Your task to perform on an android device: install app "The Home Depot" Image 0: 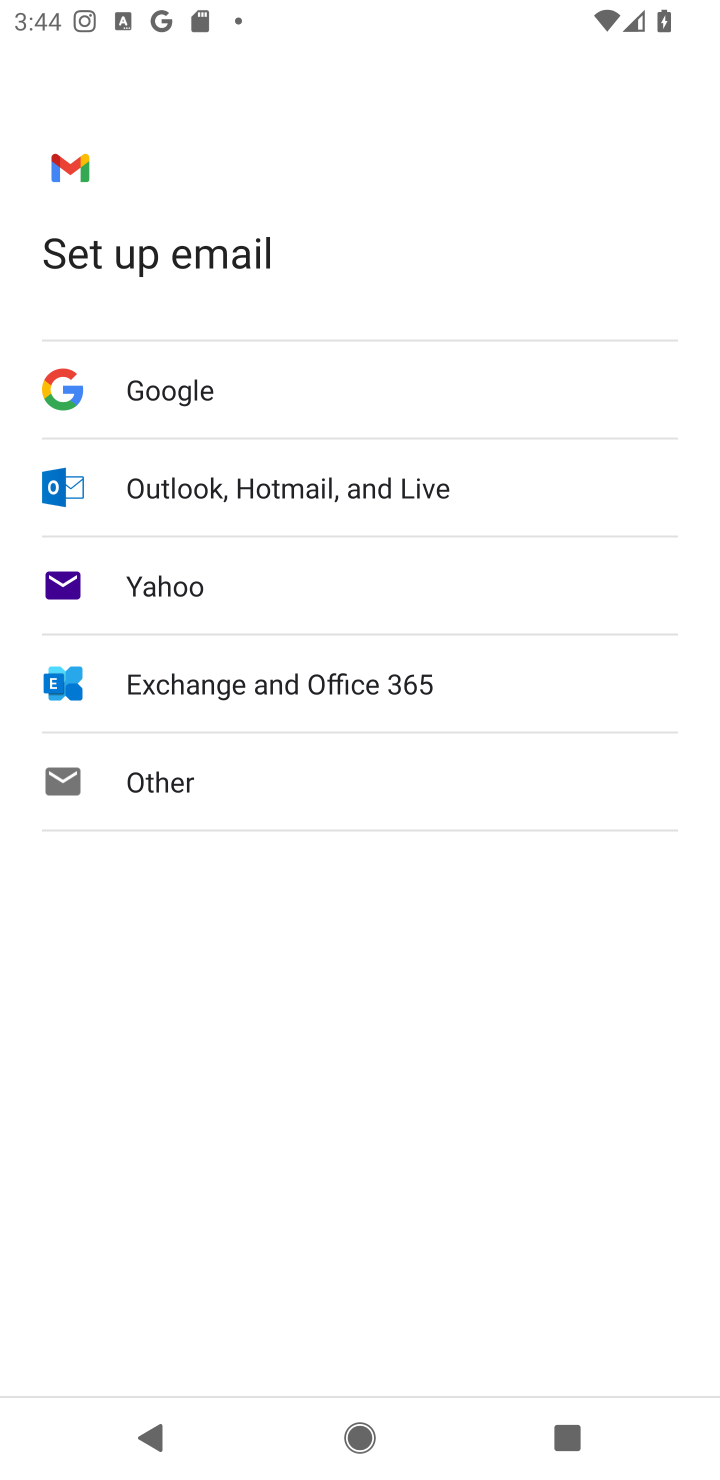
Step 0: press home button
Your task to perform on an android device: install app "The Home Depot" Image 1: 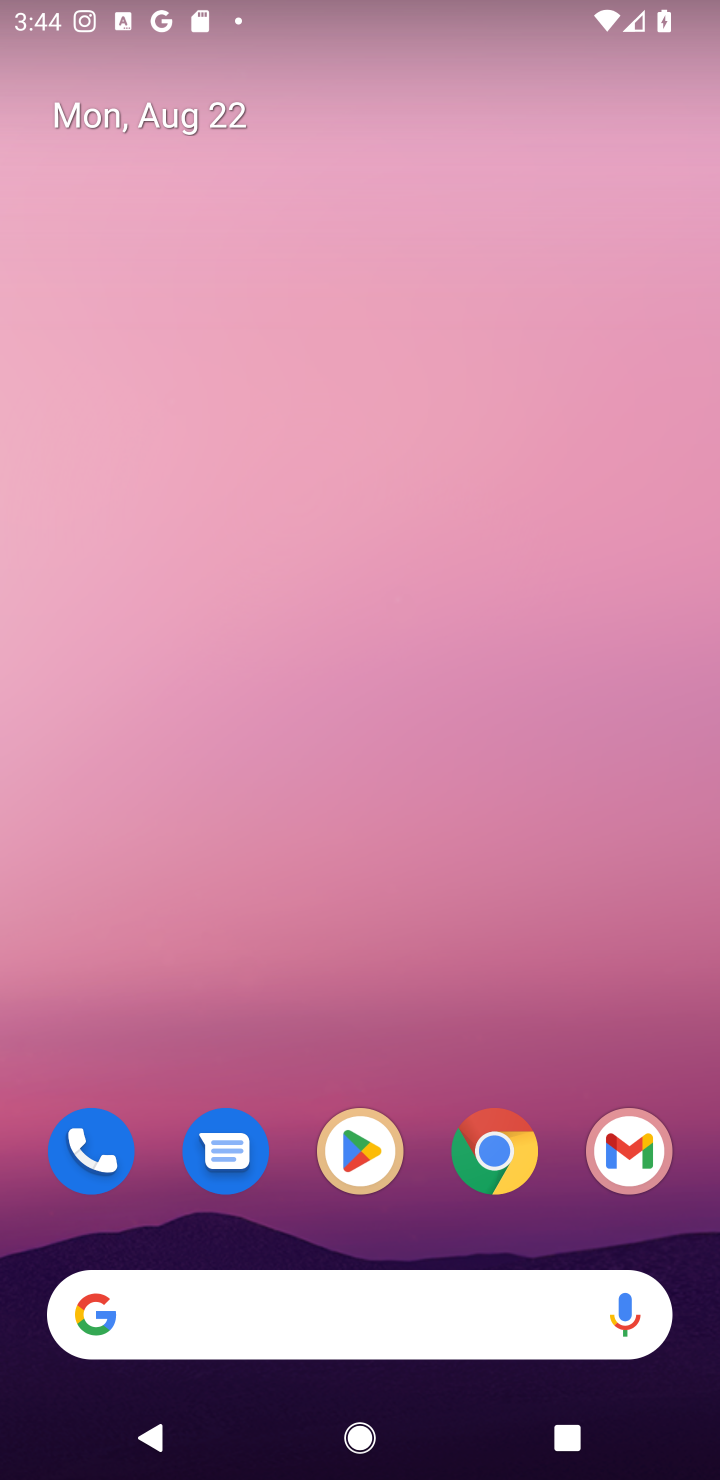
Step 1: click (357, 1154)
Your task to perform on an android device: install app "The Home Depot" Image 2: 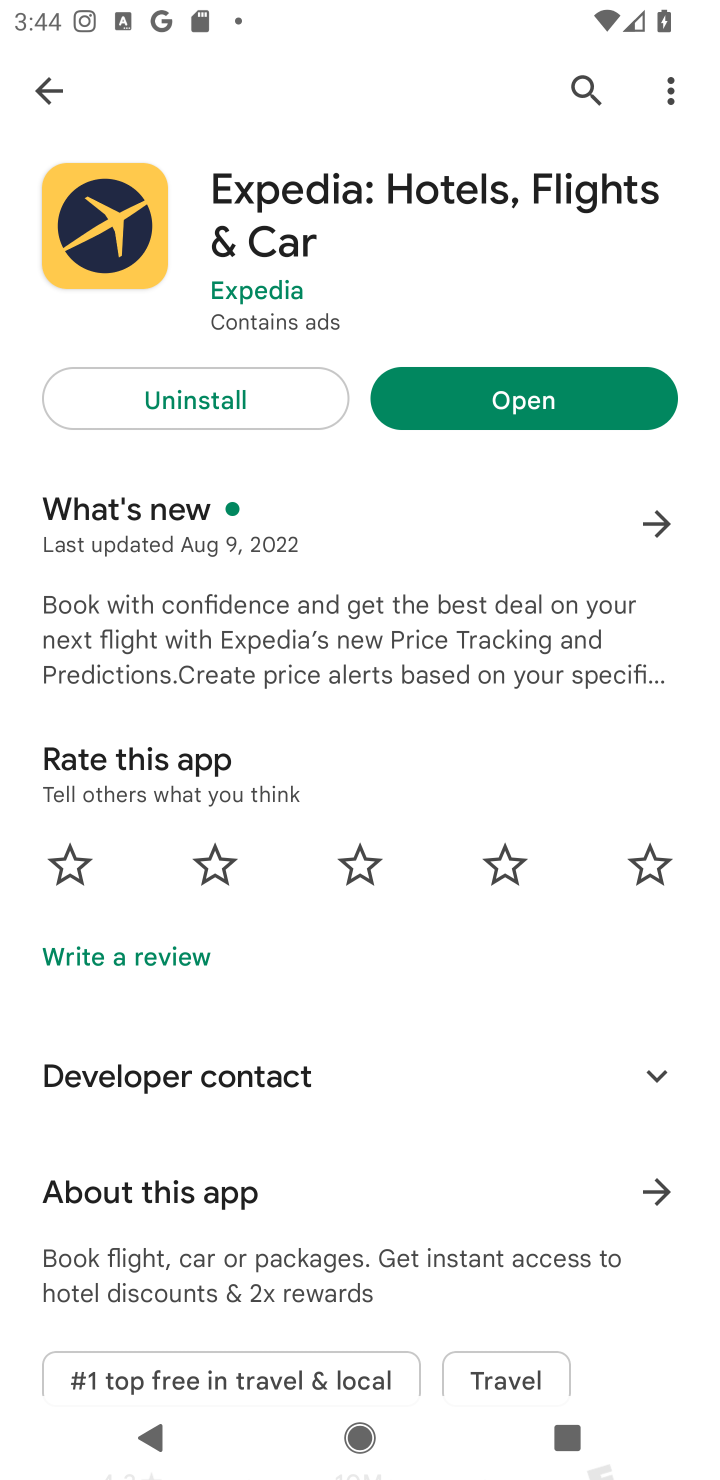
Step 2: click (580, 79)
Your task to perform on an android device: install app "The Home Depot" Image 3: 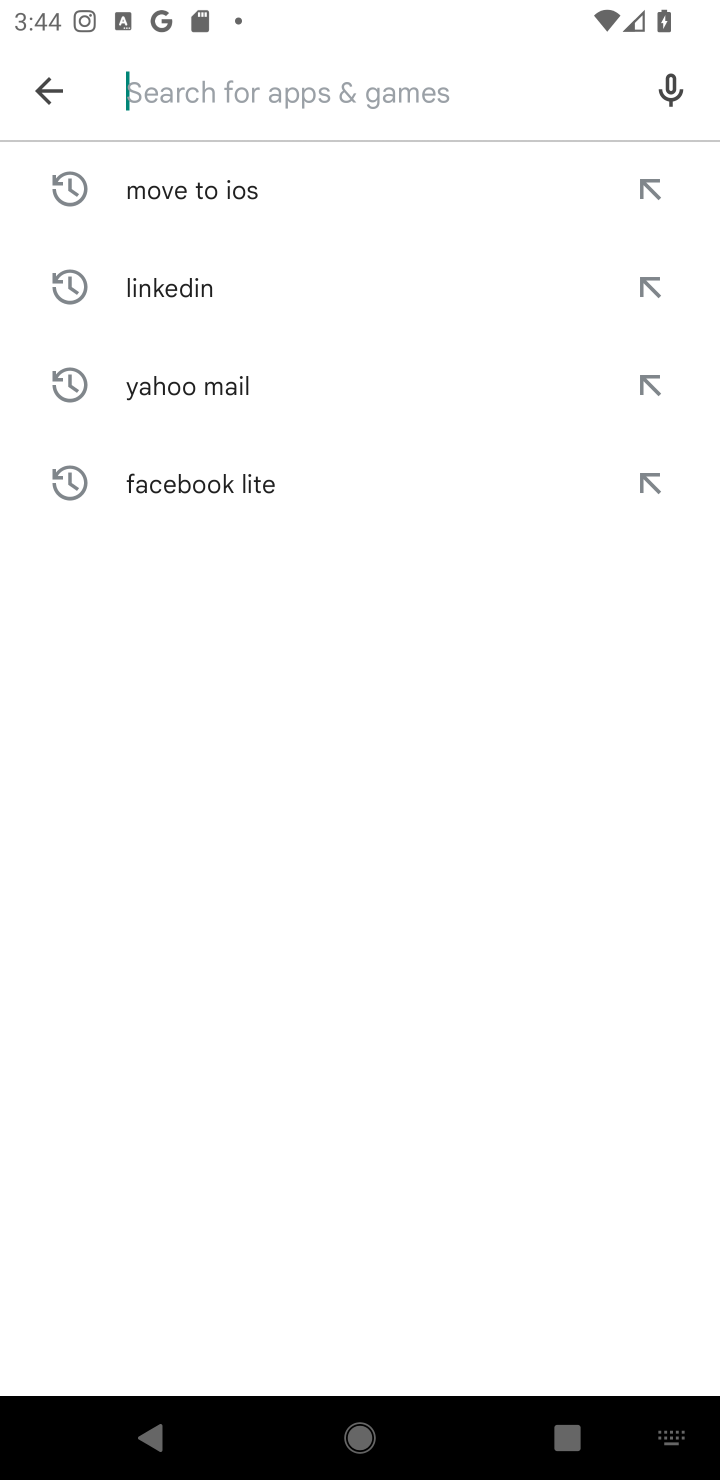
Step 3: type "The Home Depot"
Your task to perform on an android device: install app "The Home Depot" Image 4: 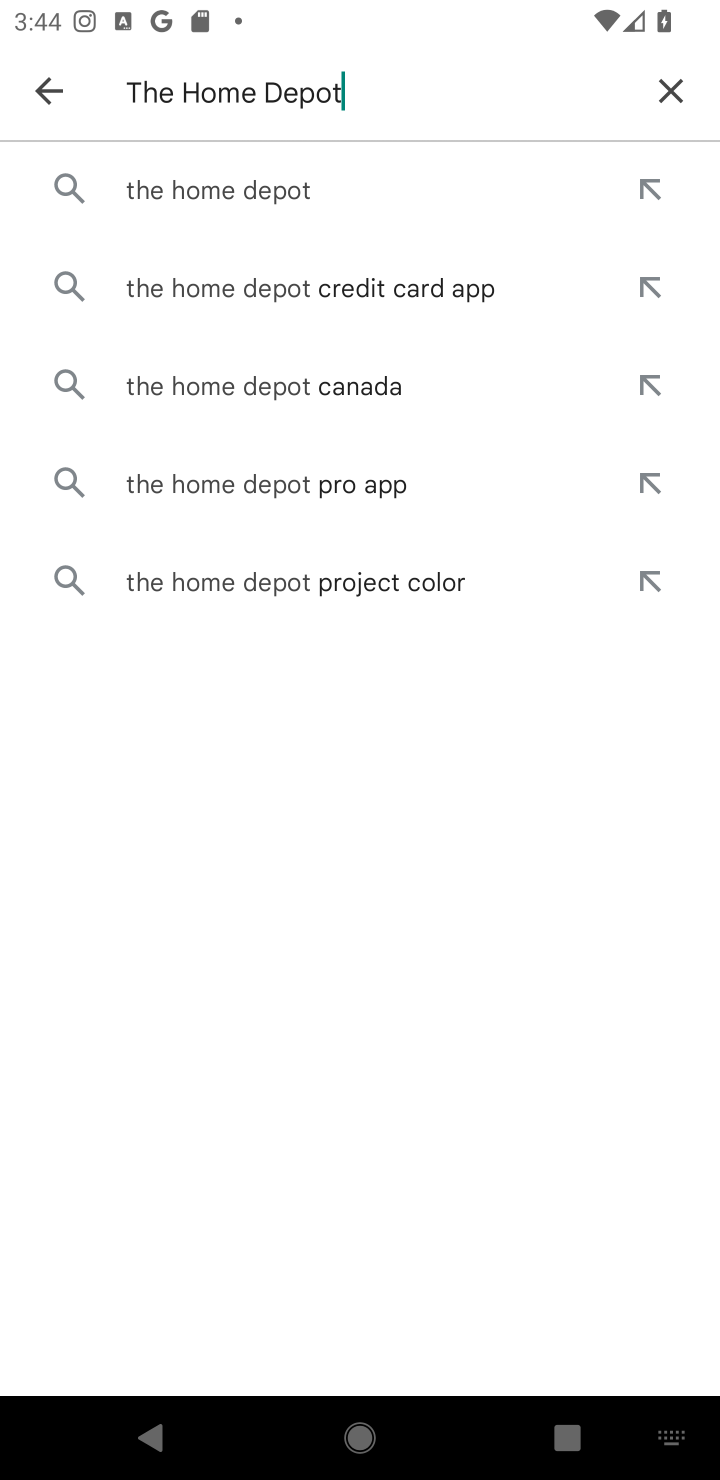
Step 4: click (274, 182)
Your task to perform on an android device: install app "The Home Depot" Image 5: 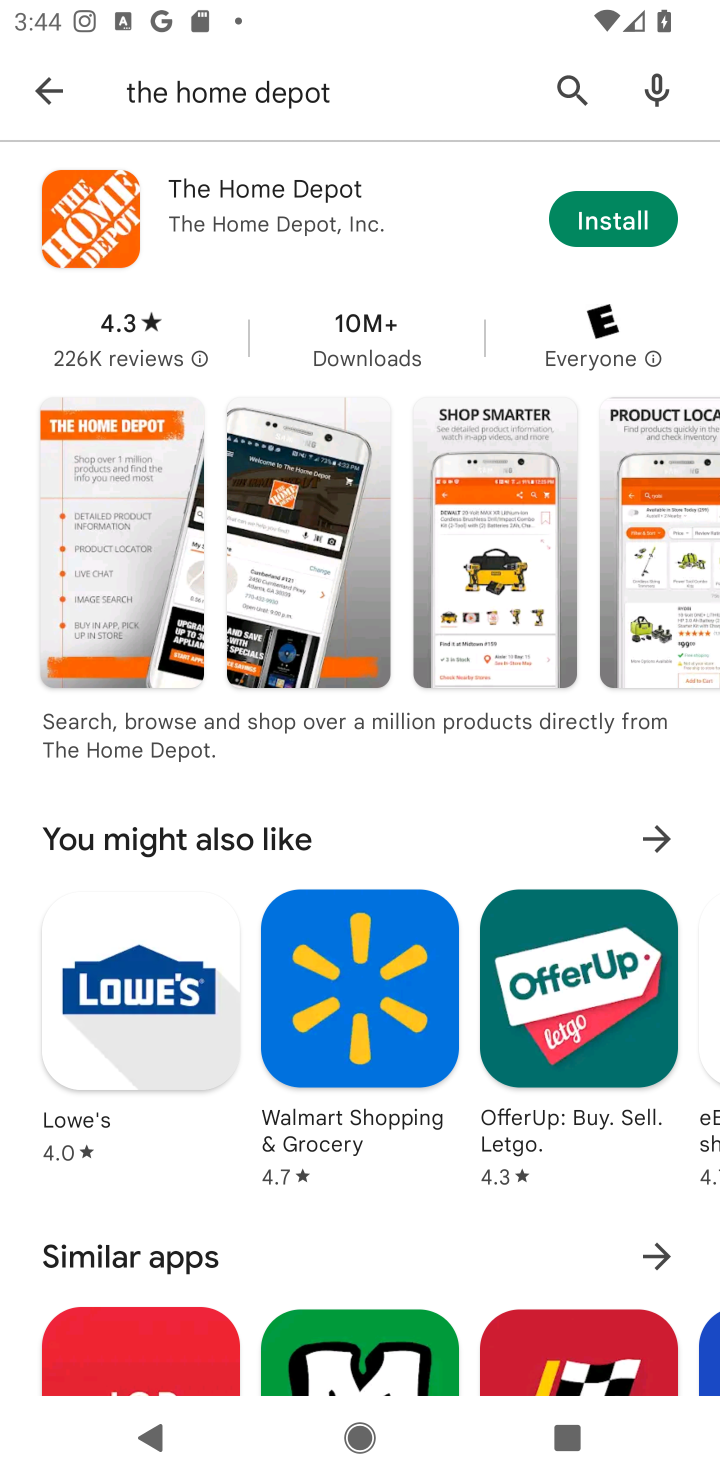
Step 5: click (605, 220)
Your task to perform on an android device: install app "The Home Depot" Image 6: 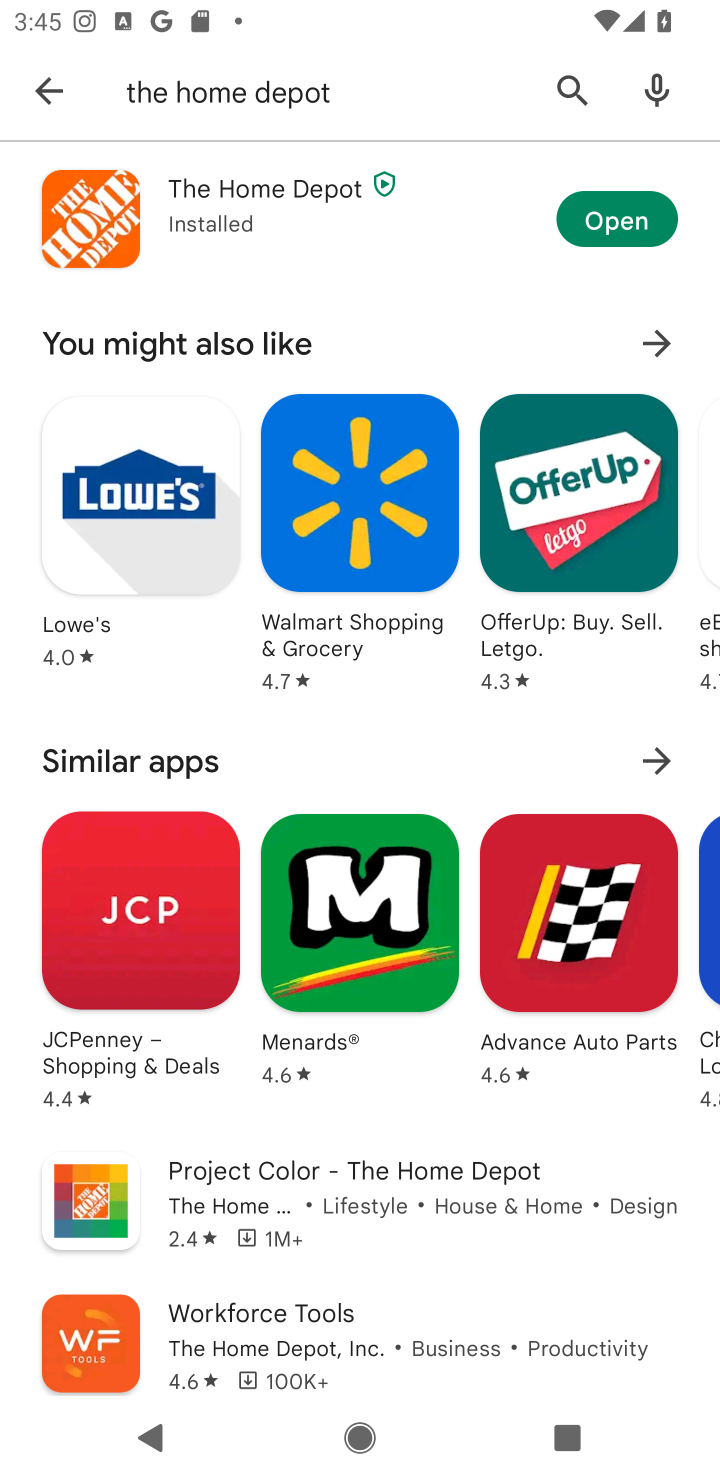
Step 6: task complete